Your task to perform on an android device: Go to internet settings Image 0: 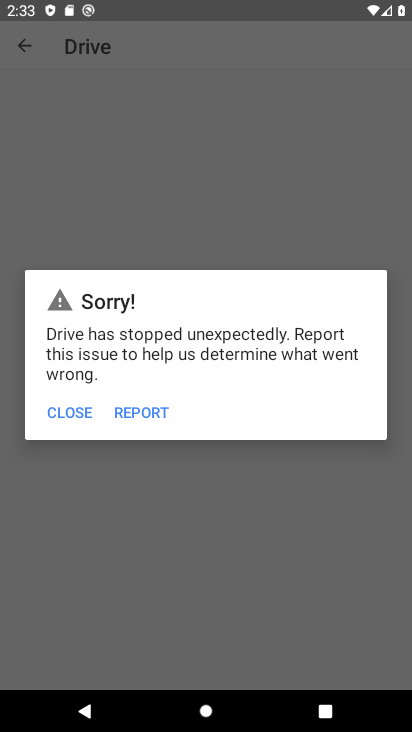
Step 0: press home button
Your task to perform on an android device: Go to internet settings Image 1: 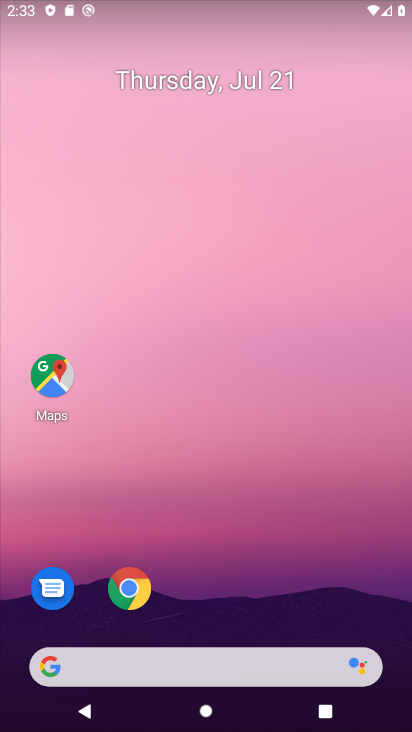
Step 1: drag from (215, 541) to (156, 111)
Your task to perform on an android device: Go to internet settings Image 2: 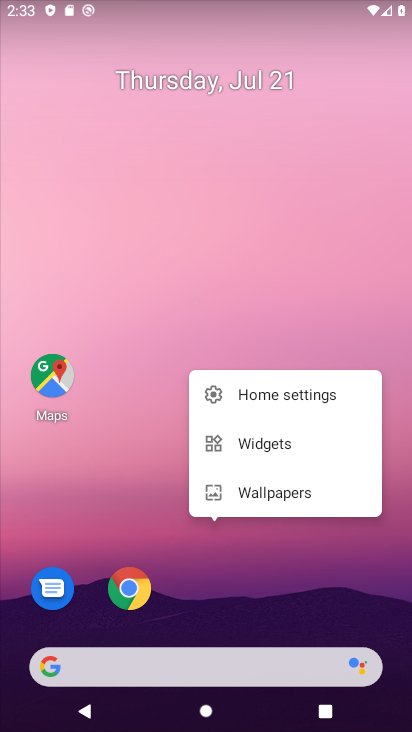
Step 2: click (195, 272)
Your task to perform on an android device: Go to internet settings Image 3: 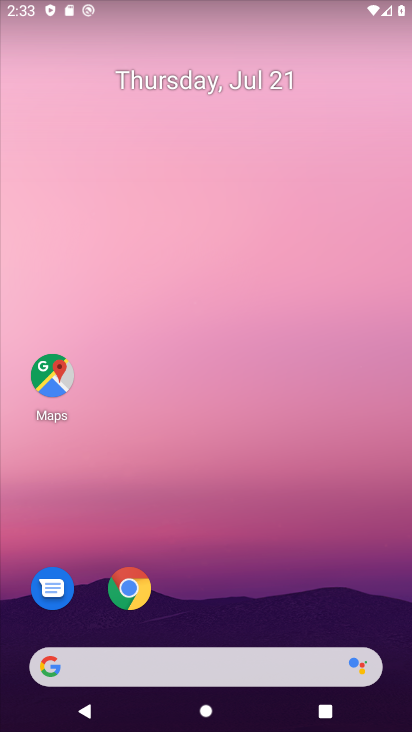
Step 3: drag from (294, 601) to (190, 49)
Your task to perform on an android device: Go to internet settings Image 4: 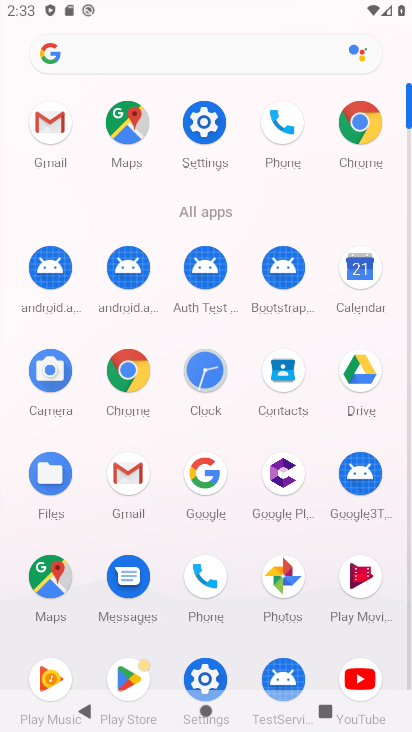
Step 4: click (205, 125)
Your task to perform on an android device: Go to internet settings Image 5: 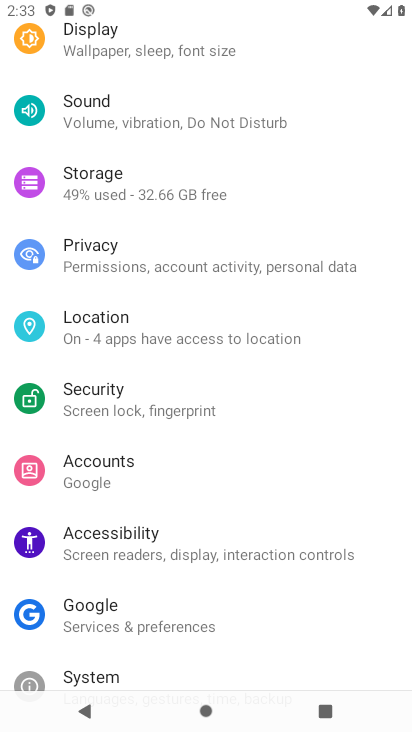
Step 5: click (266, 362)
Your task to perform on an android device: Go to internet settings Image 6: 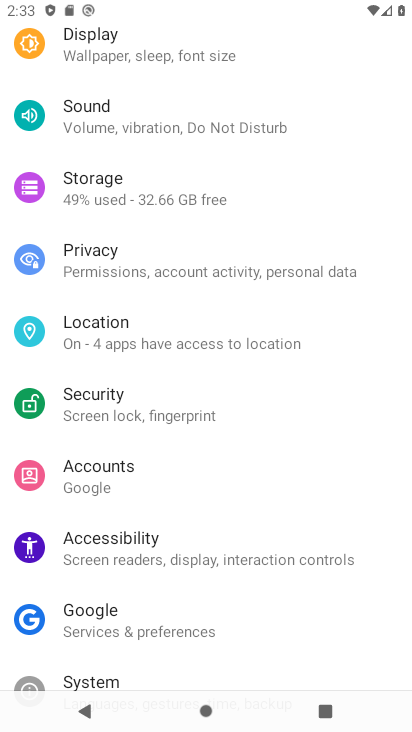
Step 6: drag from (255, 228) to (159, 664)
Your task to perform on an android device: Go to internet settings Image 7: 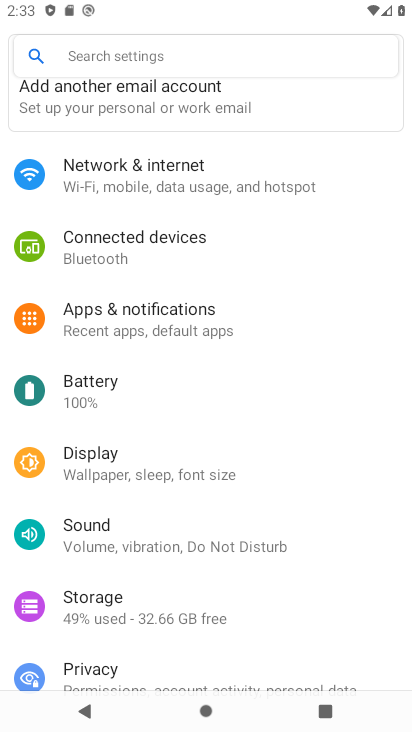
Step 7: click (115, 147)
Your task to perform on an android device: Go to internet settings Image 8: 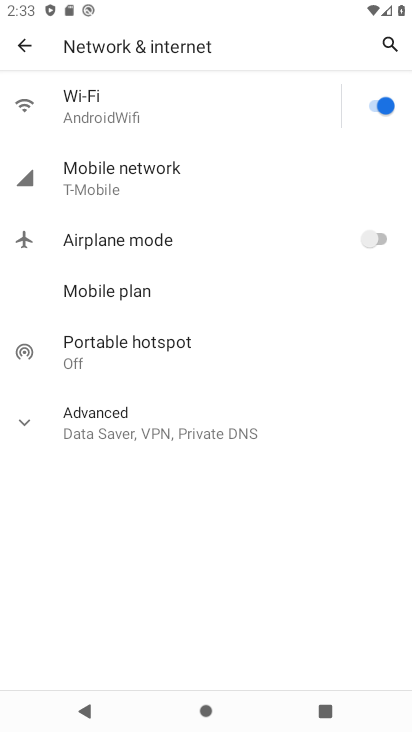
Step 8: click (104, 173)
Your task to perform on an android device: Go to internet settings Image 9: 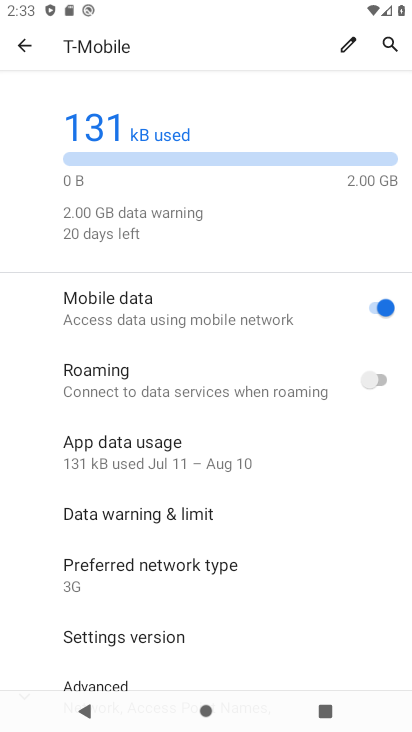
Step 9: task complete